Your task to perform on an android device: Search for pizza restaurants on Maps Image 0: 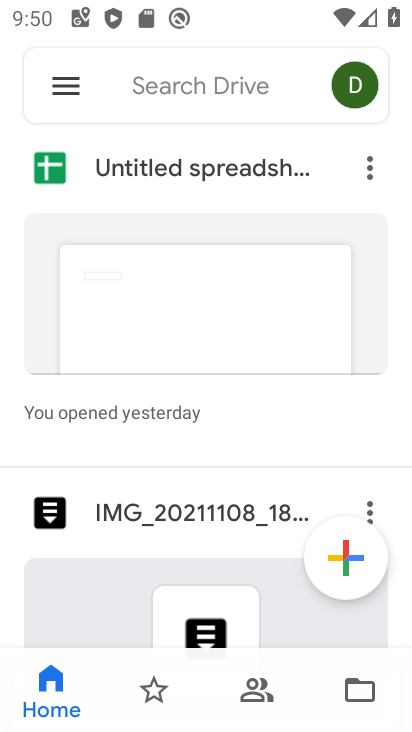
Step 0: press home button
Your task to perform on an android device: Search for pizza restaurants on Maps Image 1: 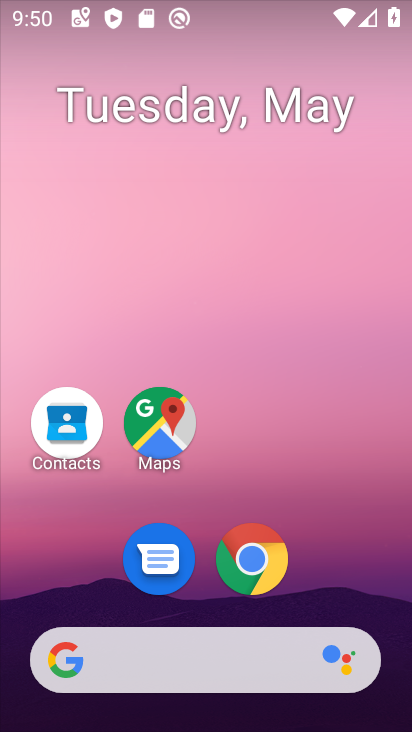
Step 1: drag from (369, 514) to (339, 178)
Your task to perform on an android device: Search for pizza restaurants on Maps Image 2: 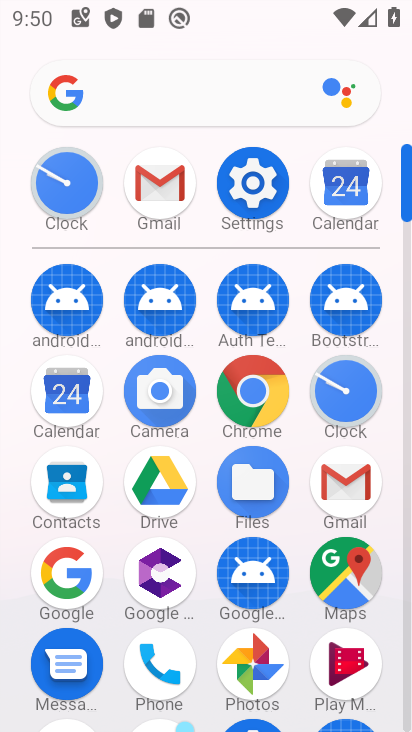
Step 2: click (348, 599)
Your task to perform on an android device: Search for pizza restaurants on Maps Image 3: 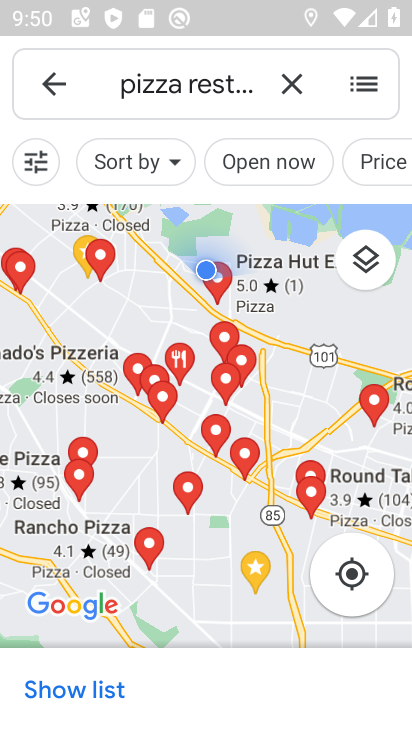
Step 3: task complete